Your task to perform on an android device: Open the calendar and show me this week's events Image 0: 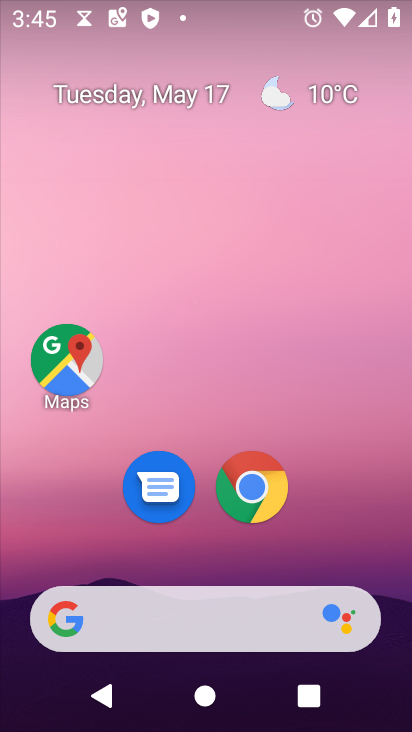
Step 0: drag from (405, 633) to (391, 157)
Your task to perform on an android device: Open the calendar and show me this week's events Image 1: 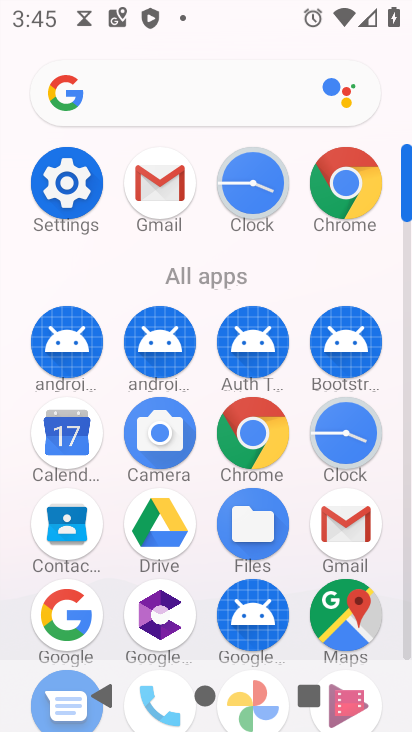
Step 1: click (406, 641)
Your task to perform on an android device: Open the calendar and show me this week's events Image 2: 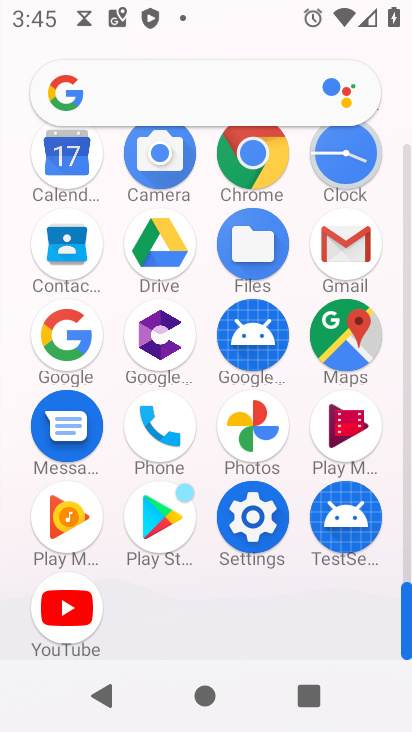
Step 2: click (66, 149)
Your task to perform on an android device: Open the calendar and show me this week's events Image 3: 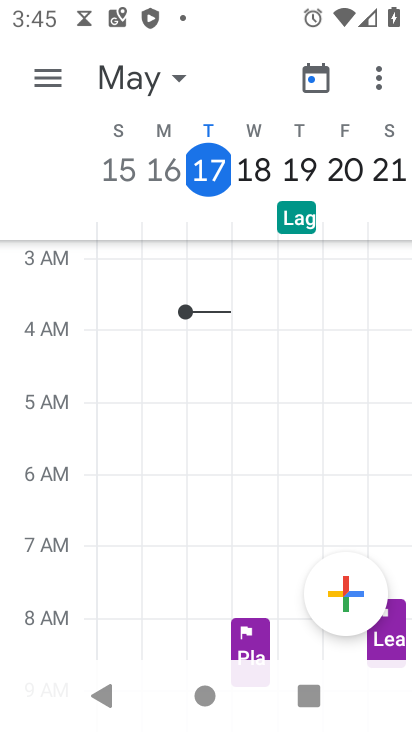
Step 3: click (175, 75)
Your task to perform on an android device: Open the calendar and show me this week's events Image 4: 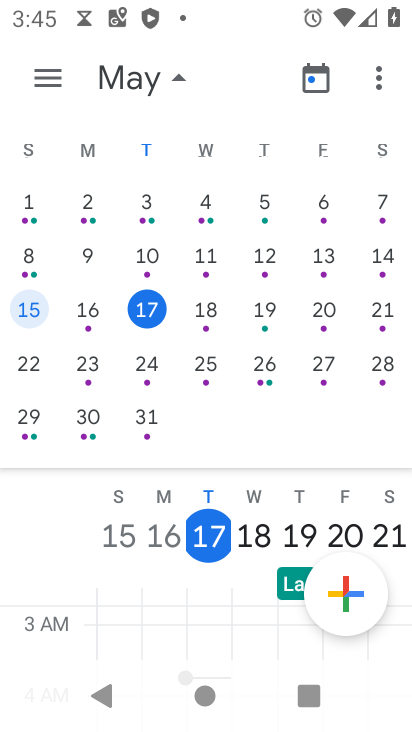
Step 4: click (157, 310)
Your task to perform on an android device: Open the calendar and show me this week's events Image 5: 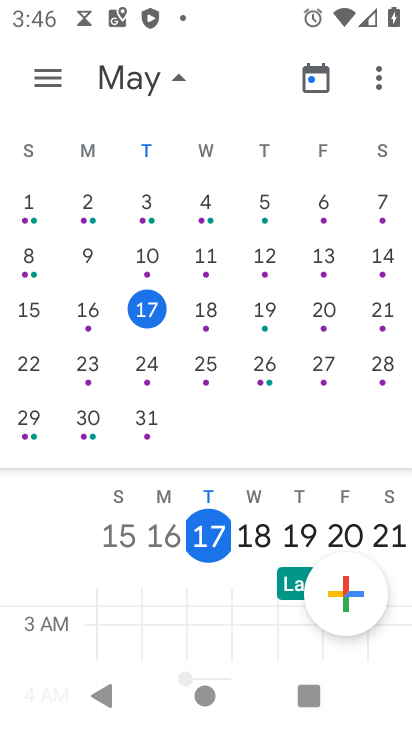
Step 5: task complete